Your task to perform on an android device: turn on bluetooth scan Image 0: 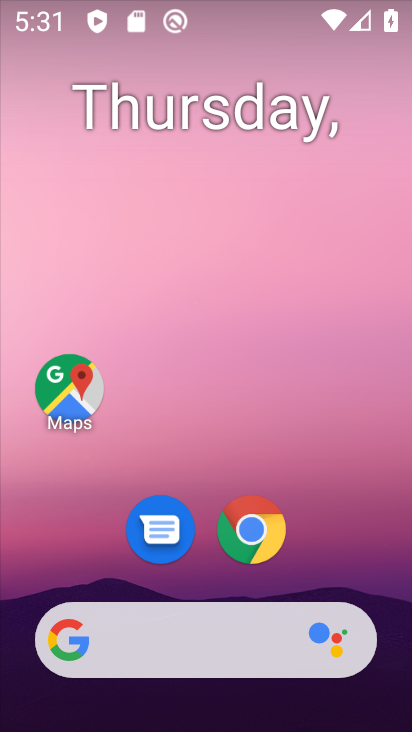
Step 0: drag from (337, 539) to (257, 17)
Your task to perform on an android device: turn on bluetooth scan Image 1: 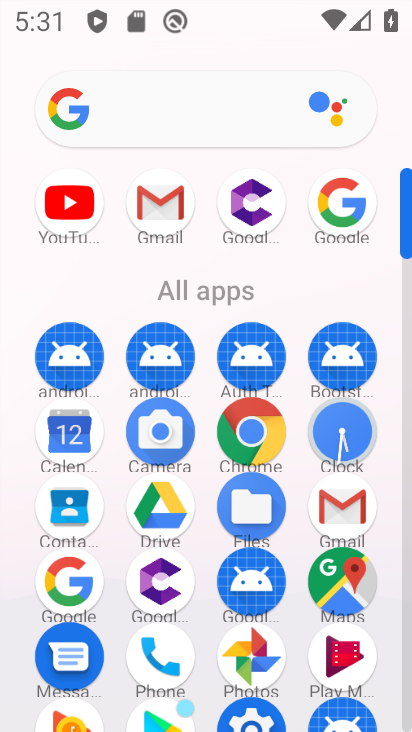
Step 1: drag from (188, 548) to (189, 330)
Your task to perform on an android device: turn on bluetooth scan Image 2: 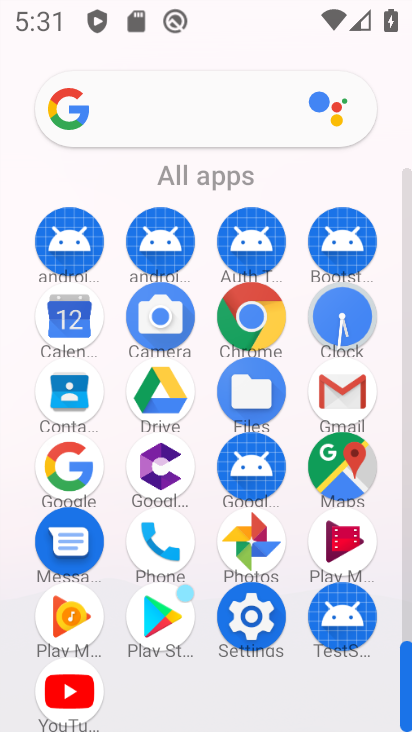
Step 2: click (251, 613)
Your task to perform on an android device: turn on bluetooth scan Image 3: 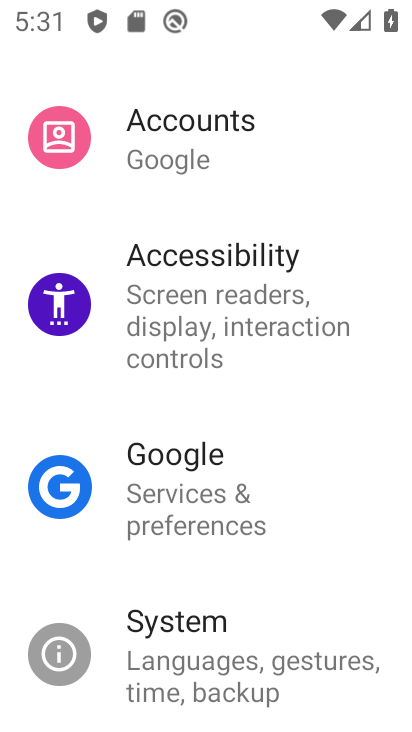
Step 3: drag from (239, 209) to (275, 415)
Your task to perform on an android device: turn on bluetooth scan Image 4: 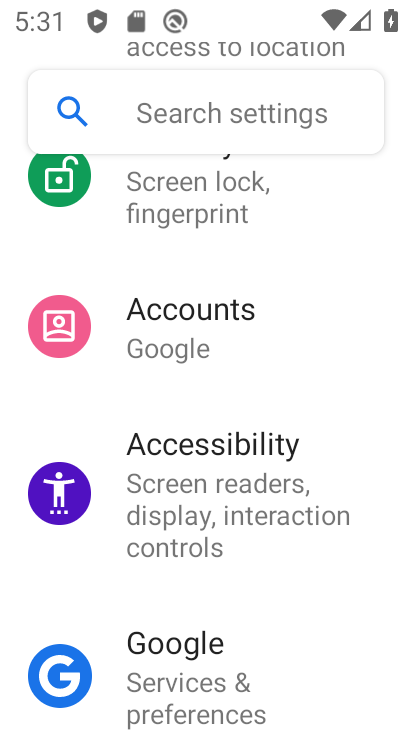
Step 4: drag from (256, 251) to (291, 446)
Your task to perform on an android device: turn on bluetooth scan Image 5: 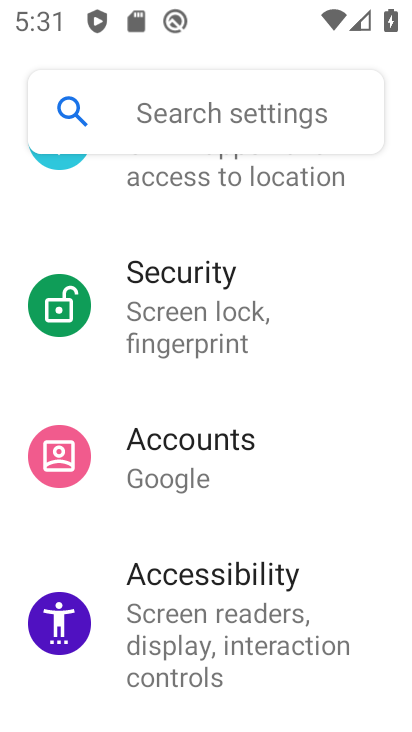
Step 5: drag from (284, 265) to (302, 482)
Your task to perform on an android device: turn on bluetooth scan Image 6: 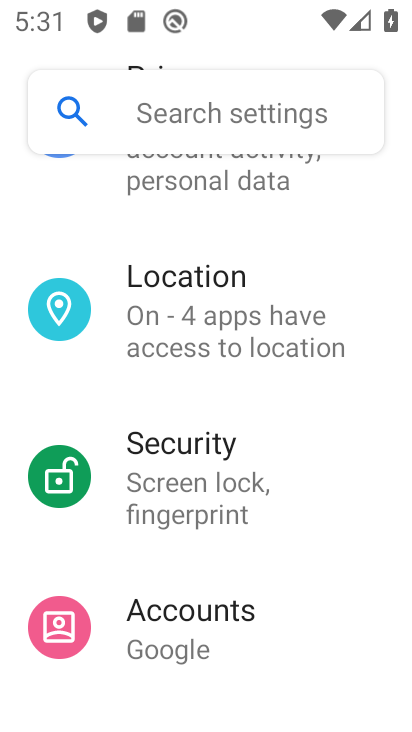
Step 6: click (210, 278)
Your task to perform on an android device: turn on bluetooth scan Image 7: 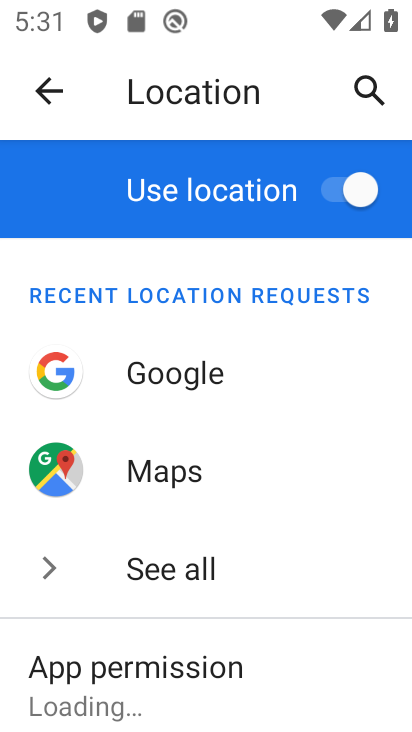
Step 7: drag from (256, 658) to (295, 455)
Your task to perform on an android device: turn on bluetooth scan Image 8: 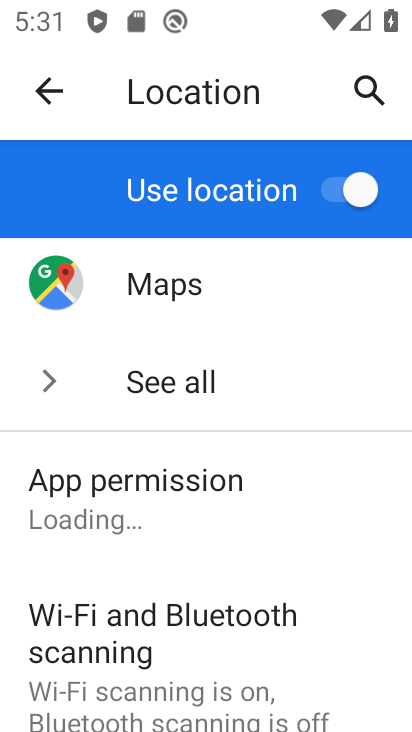
Step 8: drag from (258, 590) to (282, 447)
Your task to perform on an android device: turn on bluetooth scan Image 9: 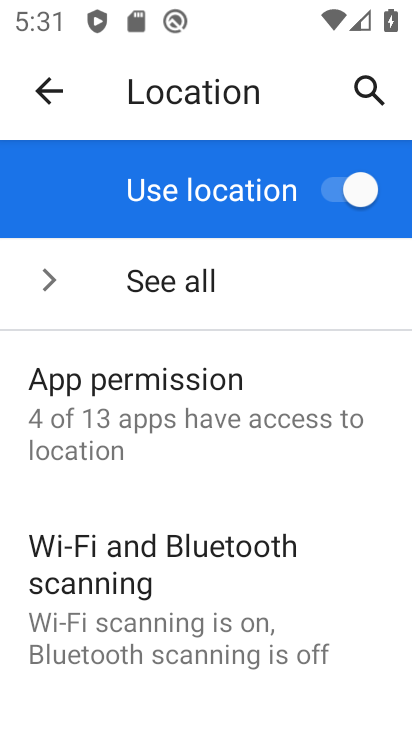
Step 9: click (154, 557)
Your task to perform on an android device: turn on bluetooth scan Image 10: 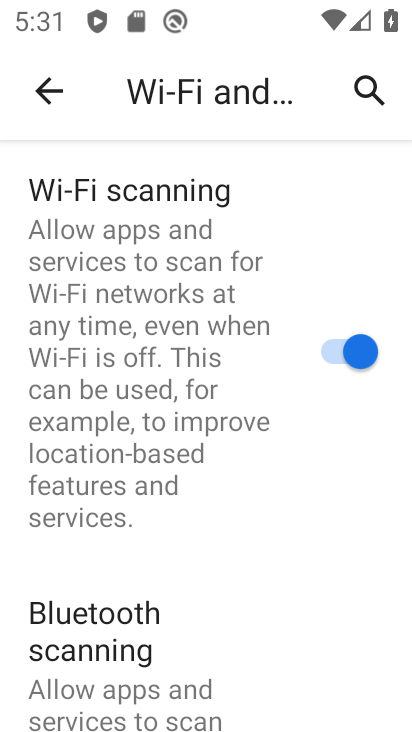
Step 10: drag from (200, 680) to (287, 372)
Your task to perform on an android device: turn on bluetooth scan Image 11: 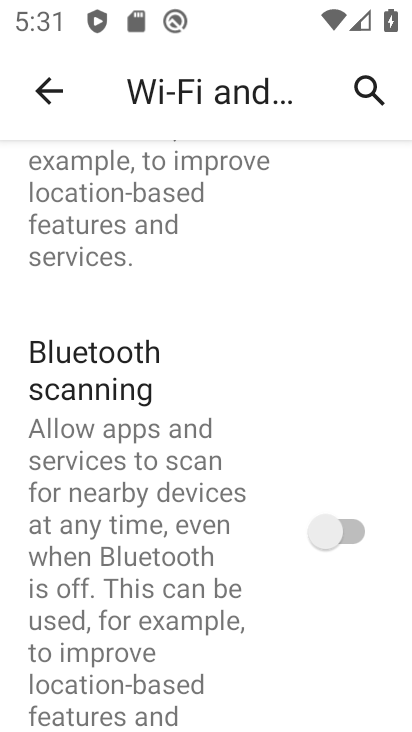
Step 11: click (324, 522)
Your task to perform on an android device: turn on bluetooth scan Image 12: 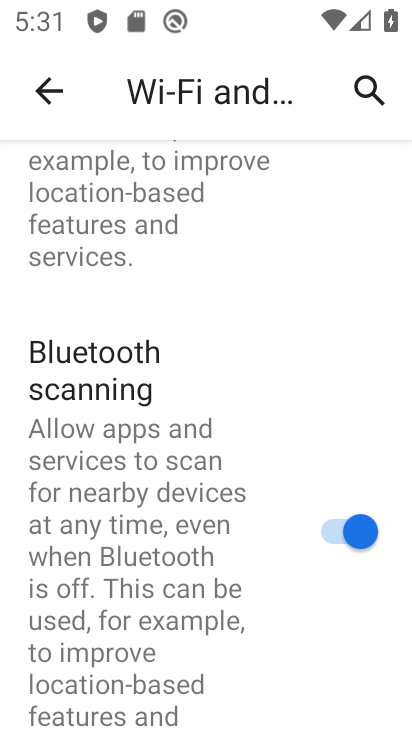
Step 12: task complete